Your task to perform on an android device: Open network settings Image 0: 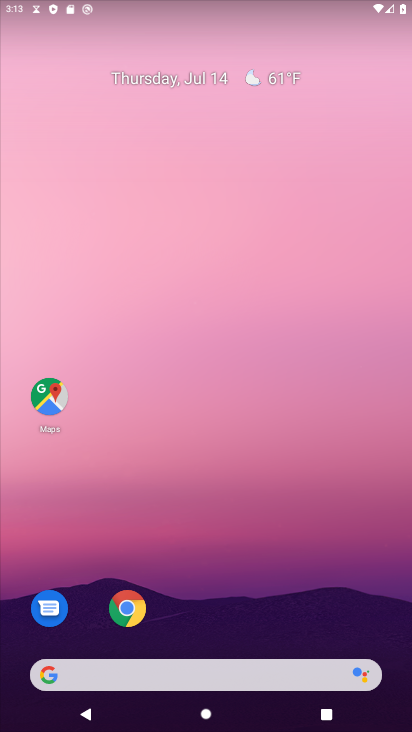
Step 0: drag from (221, 673) to (210, 39)
Your task to perform on an android device: Open network settings Image 1: 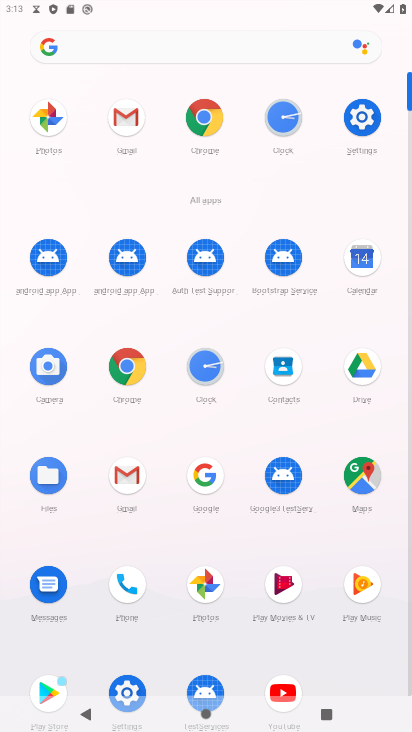
Step 1: click (353, 132)
Your task to perform on an android device: Open network settings Image 2: 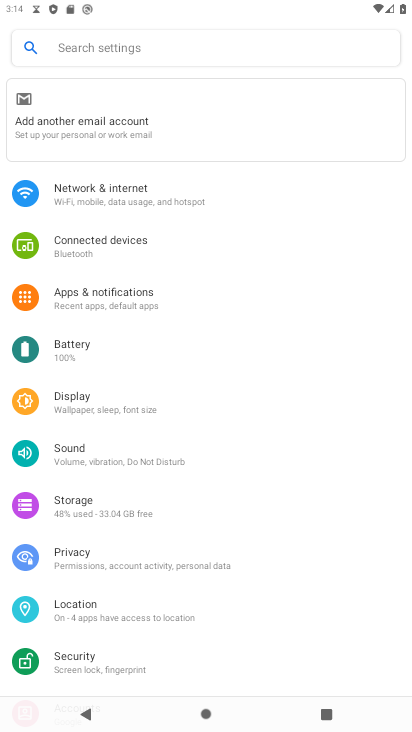
Step 2: click (129, 188)
Your task to perform on an android device: Open network settings Image 3: 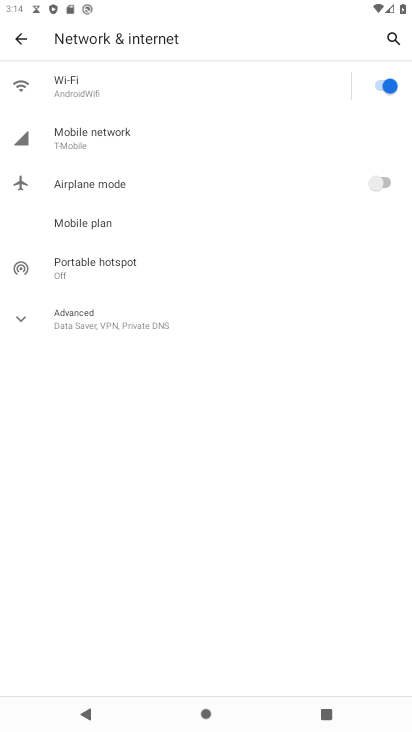
Step 3: task complete